Your task to perform on an android device: check storage Image 0: 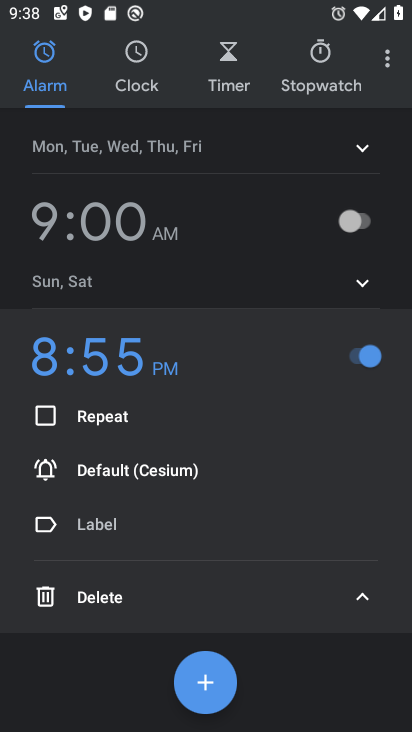
Step 0: press home button
Your task to perform on an android device: check storage Image 1: 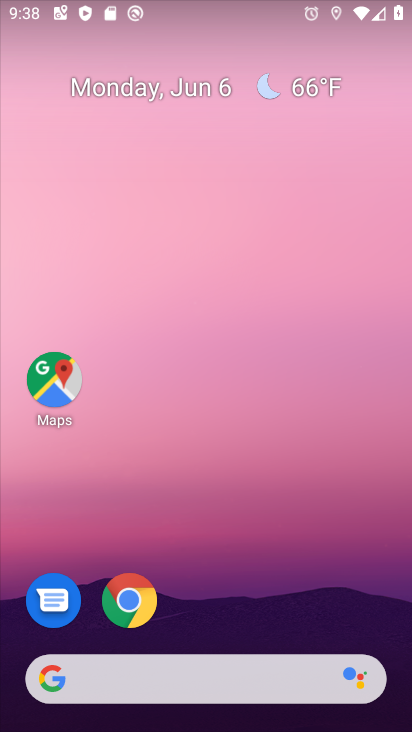
Step 1: drag from (44, 542) to (249, 161)
Your task to perform on an android device: check storage Image 2: 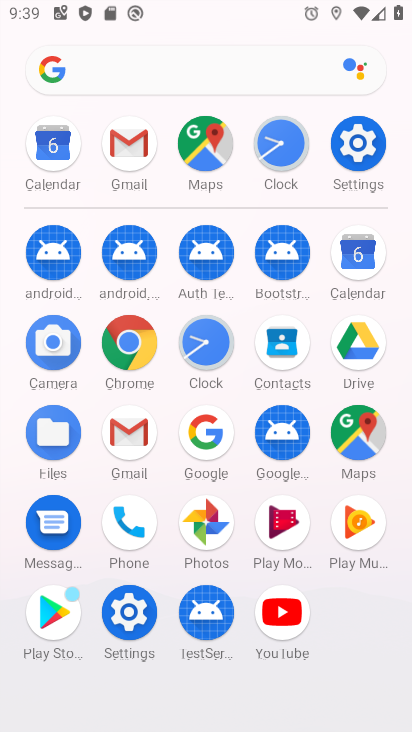
Step 2: click (339, 148)
Your task to perform on an android device: check storage Image 3: 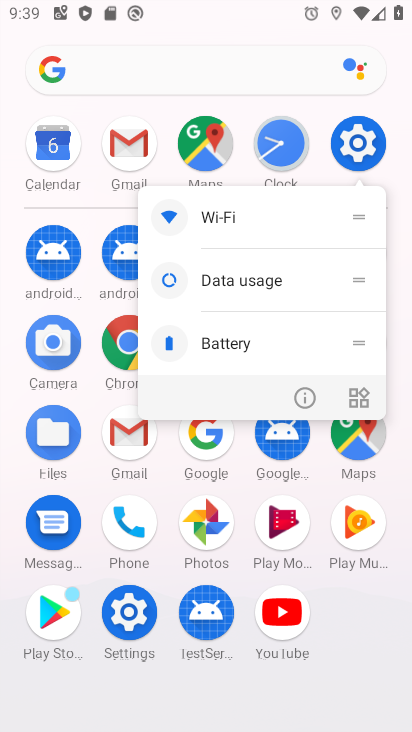
Step 3: click (370, 116)
Your task to perform on an android device: check storage Image 4: 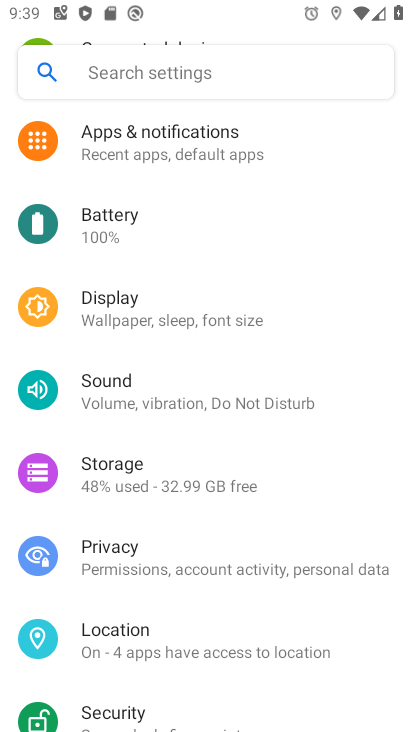
Step 4: click (198, 484)
Your task to perform on an android device: check storage Image 5: 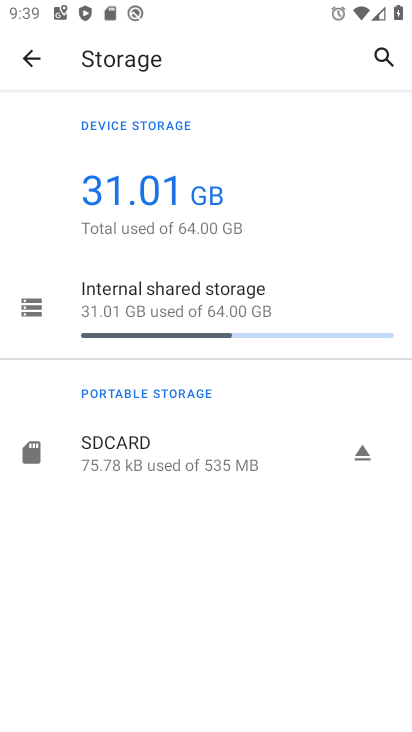
Step 5: task complete